Your task to perform on an android device: Open Amazon Image 0: 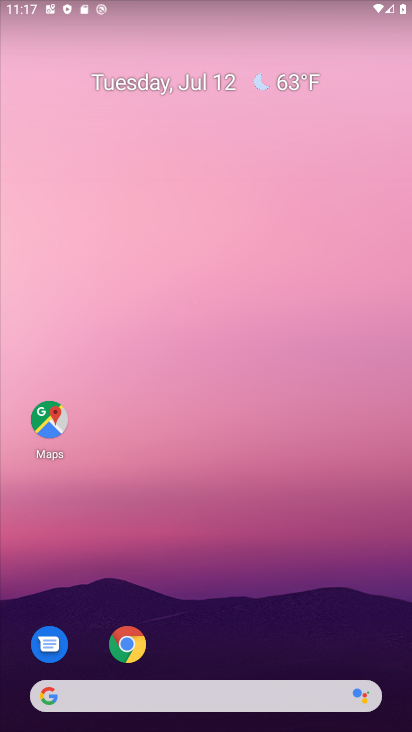
Step 0: click (126, 646)
Your task to perform on an android device: Open Amazon Image 1: 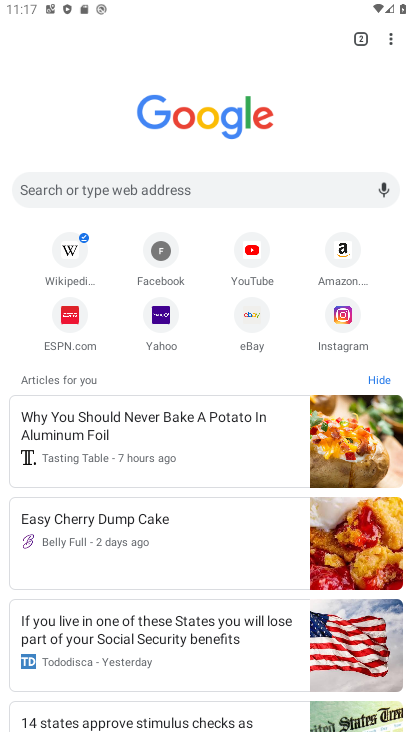
Step 1: click (176, 188)
Your task to perform on an android device: Open Amazon Image 2: 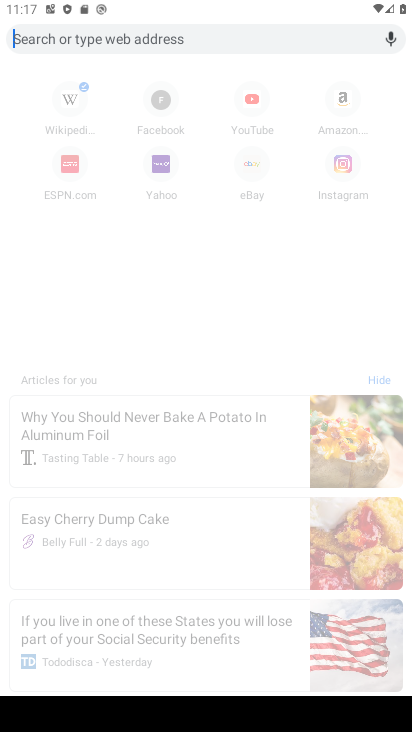
Step 2: type "Amazon"
Your task to perform on an android device: Open Amazon Image 3: 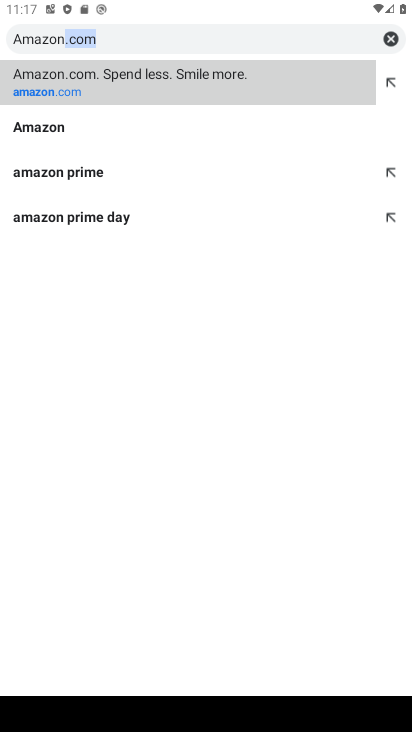
Step 3: click (50, 130)
Your task to perform on an android device: Open Amazon Image 4: 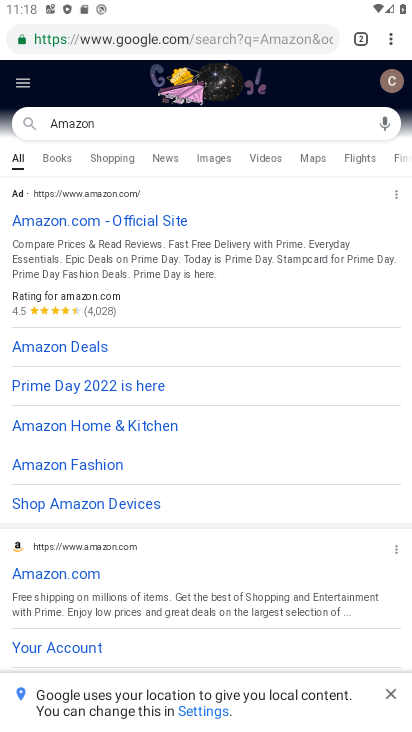
Step 4: click (58, 576)
Your task to perform on an android device: Open Amazon Image 5: 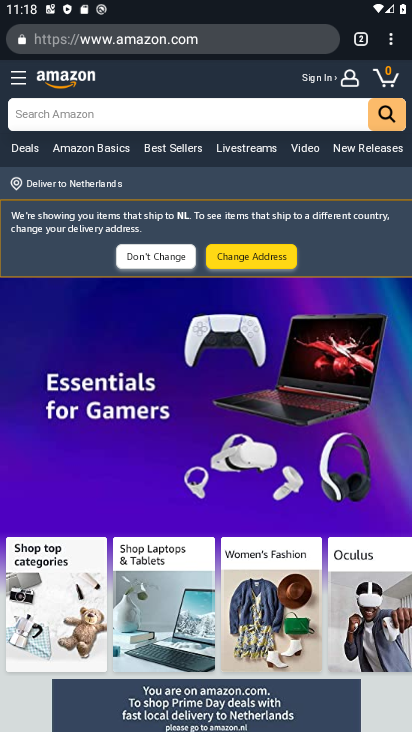
Step 5: task complete